Your task to perform on an android device: toggle translation in the chrome app Image 0: 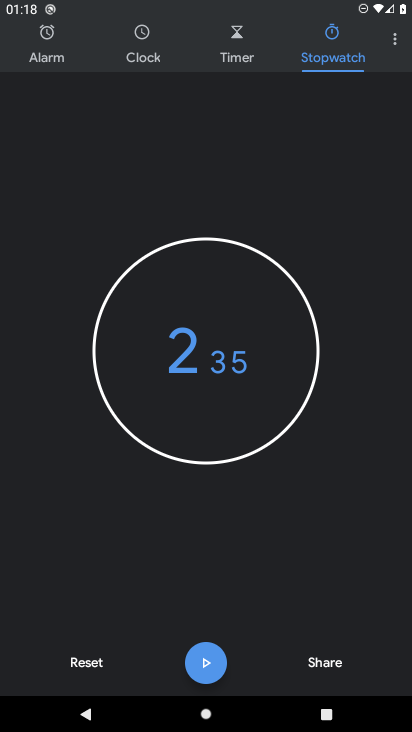
Step 0: press home button
Your task to perform on an android device: toggle translation in the chrome app Image 1: 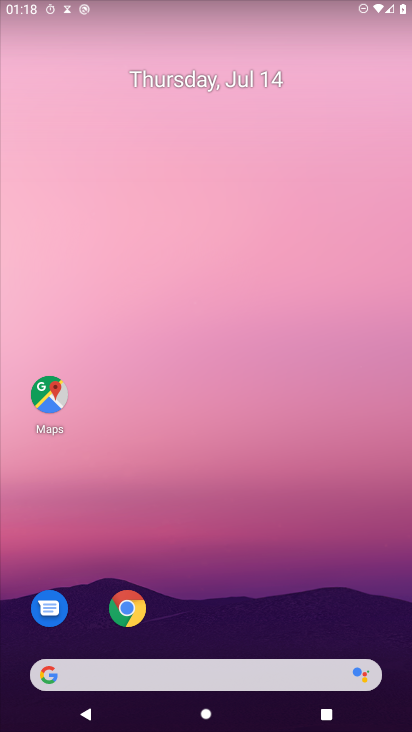
Step 1: click (123, 605)
Your task to perform on an android device: toggle translation in the chrome app Image 2: 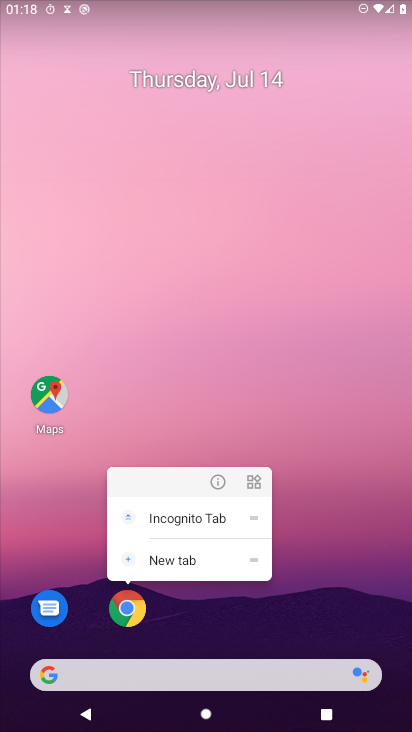
Step 2: click (120, 608)
Your task to perform on an android device: toggle translation in the chrome app Image 3: 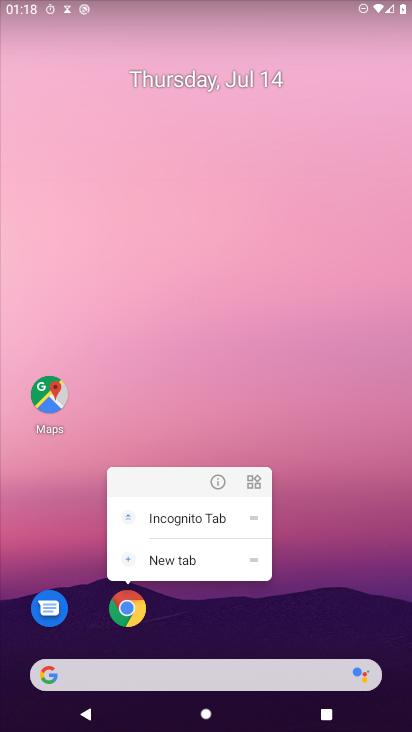
Step 3: click (120, 608)
Your task to perform on an android device: toggle translation in the chrome app Image 4: 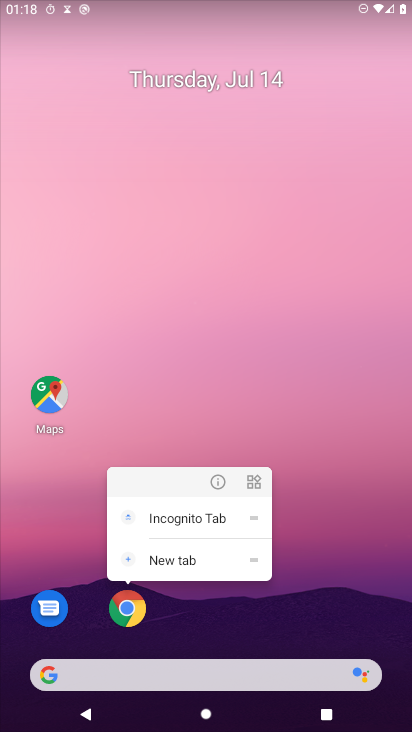
Step 4: click (120, 608)
Your task to perform on an android device: toggle translation in the chrome app Image 5: 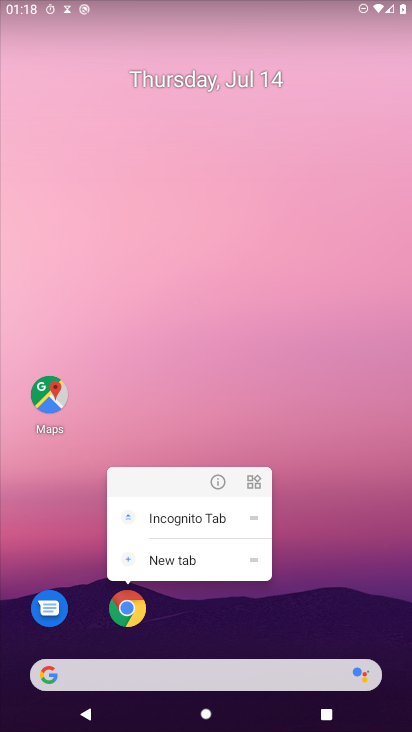
Step 5: click (132, 619)
Your task to perform on an android device: toggle translation in the chrome app Image 6: 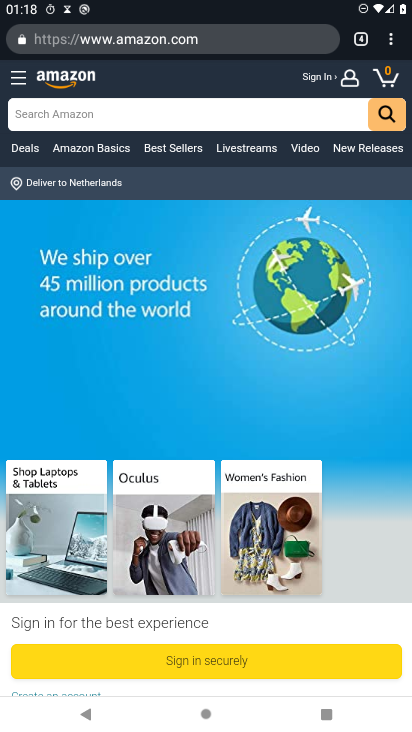
Step 6: click (392, 34)
Your task to perform on an android device: toggle translation in the chrome app Image 7: 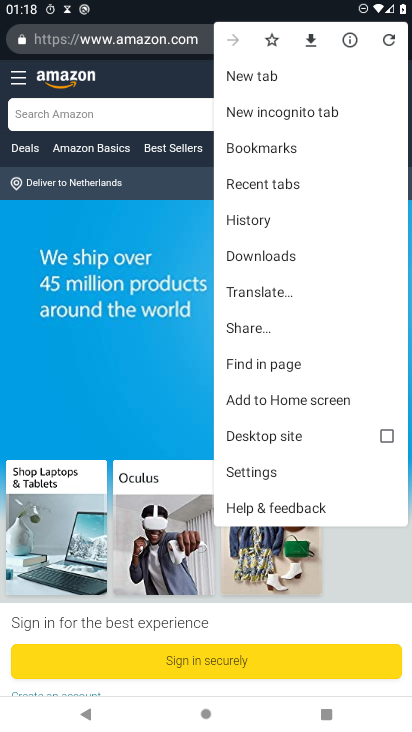
Step 7: click (256, 469)
Your task to perform on an android device: toggle translation in the chrome app Image 8: 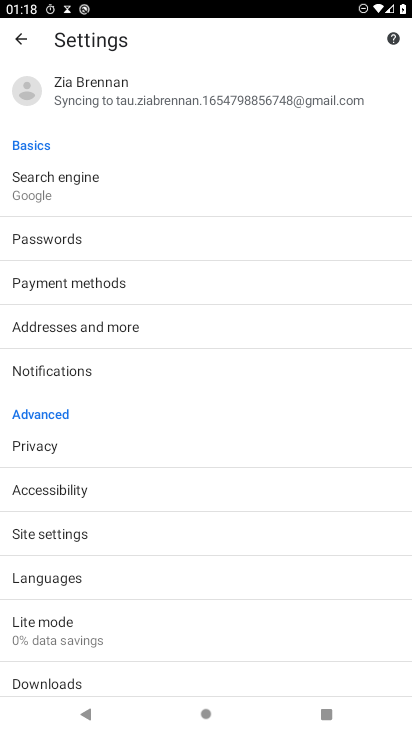
Step 8: click (19, 583)
Your task to perform on an android device: toggle translation in the chrome app Image 9: 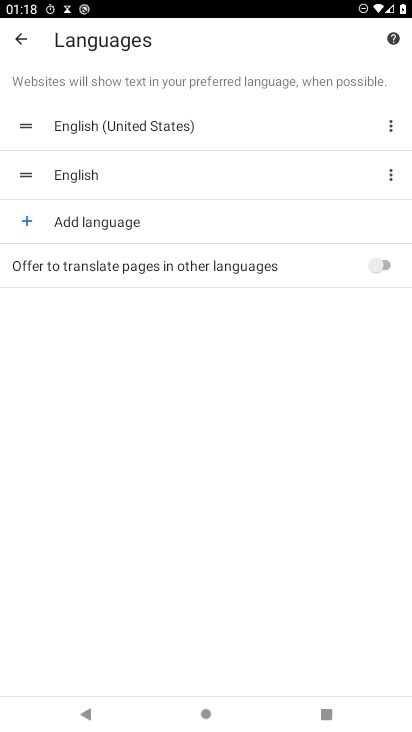
Step 9: click (381, 263)
Your task to perform on an android device: toggle translation in the chrome app Image 10: 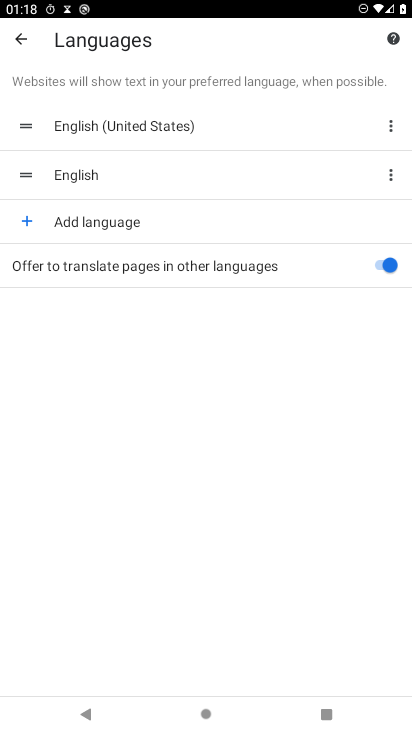
Step 10: task complete